Your task to perform on an android device: Play the last video I watched on Youtube Image 0: 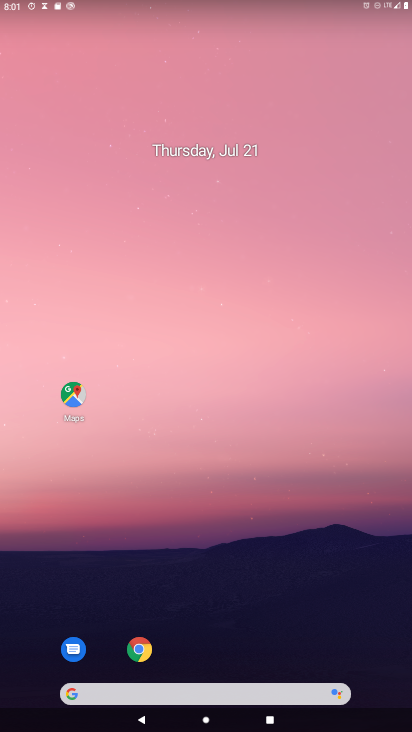
Step 0: drag from (298, 532) to (202, 44)
Your task to perform on an android device: Play the last video I watched on Youtube Image 1: 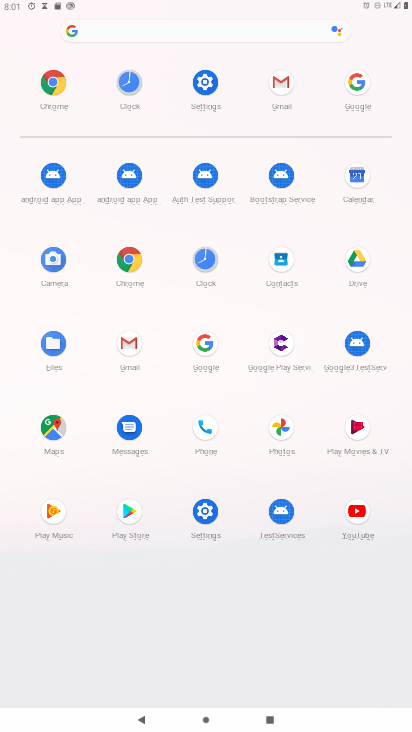
Step 1: click (362, 518)
Your task to perform on an android device: Play the last video I watched on Youtube Image 2: 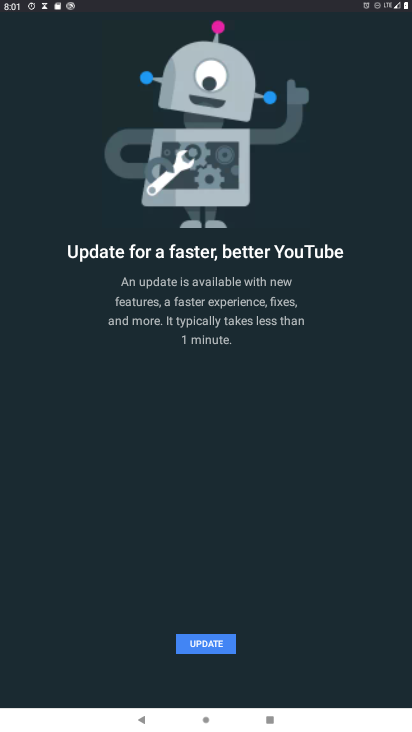
Step 2: click (179, 647)
Your task to perform on an android device: Play the last video I watched on Youtube Image 3: 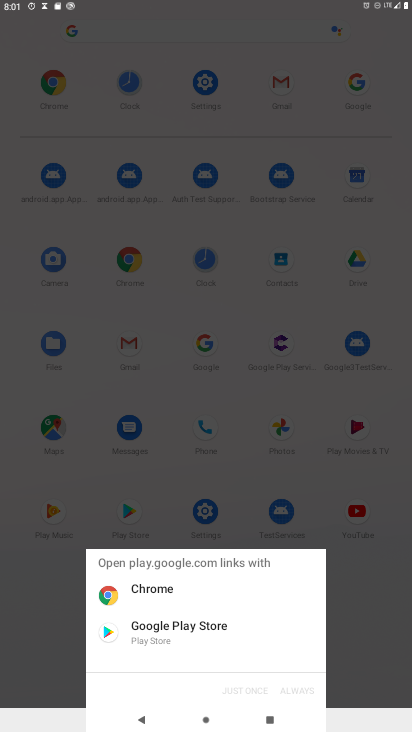
Step 3: click (155, 641)
Your task to perform on an android device: Play the last video I watched on Youtube Image 4: 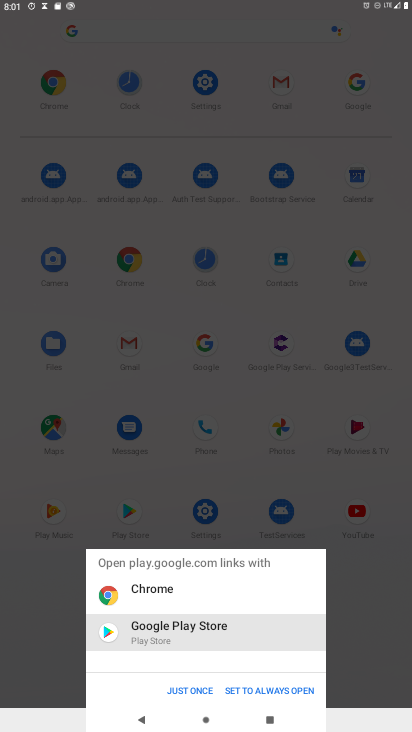
Step 4: click (189, 690)
Your task to perform on an android device: Play the last video I watched on Youtube Image 5: 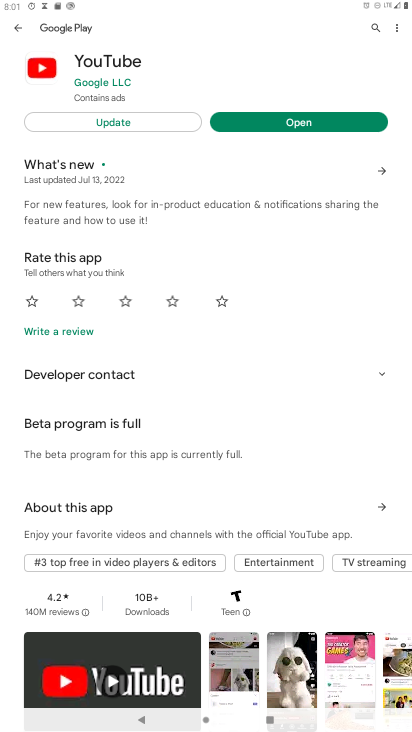
Step 5: click (93, 121)
Your task to perform on an android device: Play the last video I watched on Youtube Image 6: 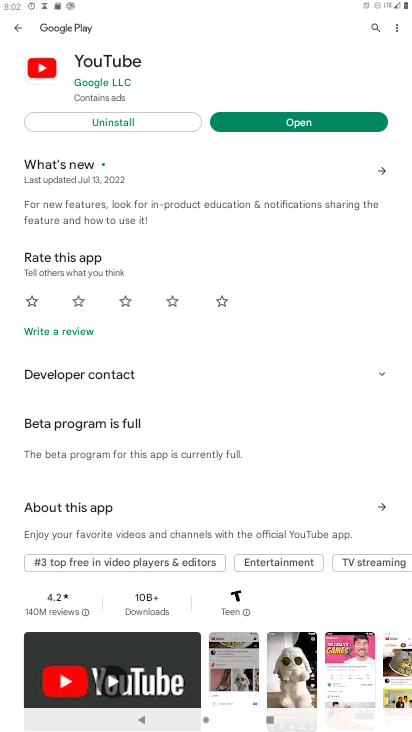
Step 6: click (244, 122)
Your task to perform on an android device: Play the last video I watched on Youtube Image 7: 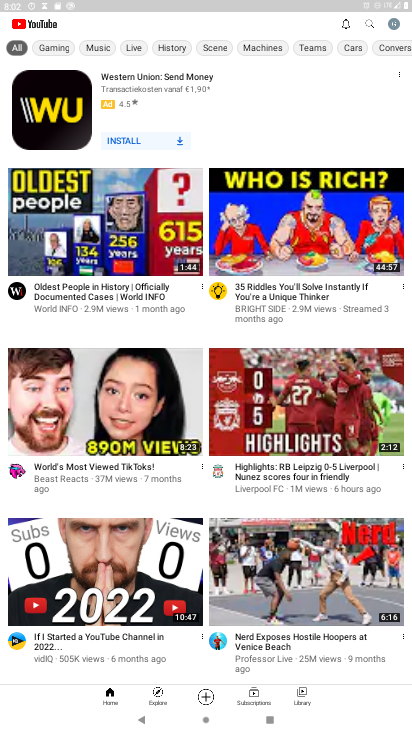
Step 7: task complete